Your task to perform on an android device: See recent photos Image 0: 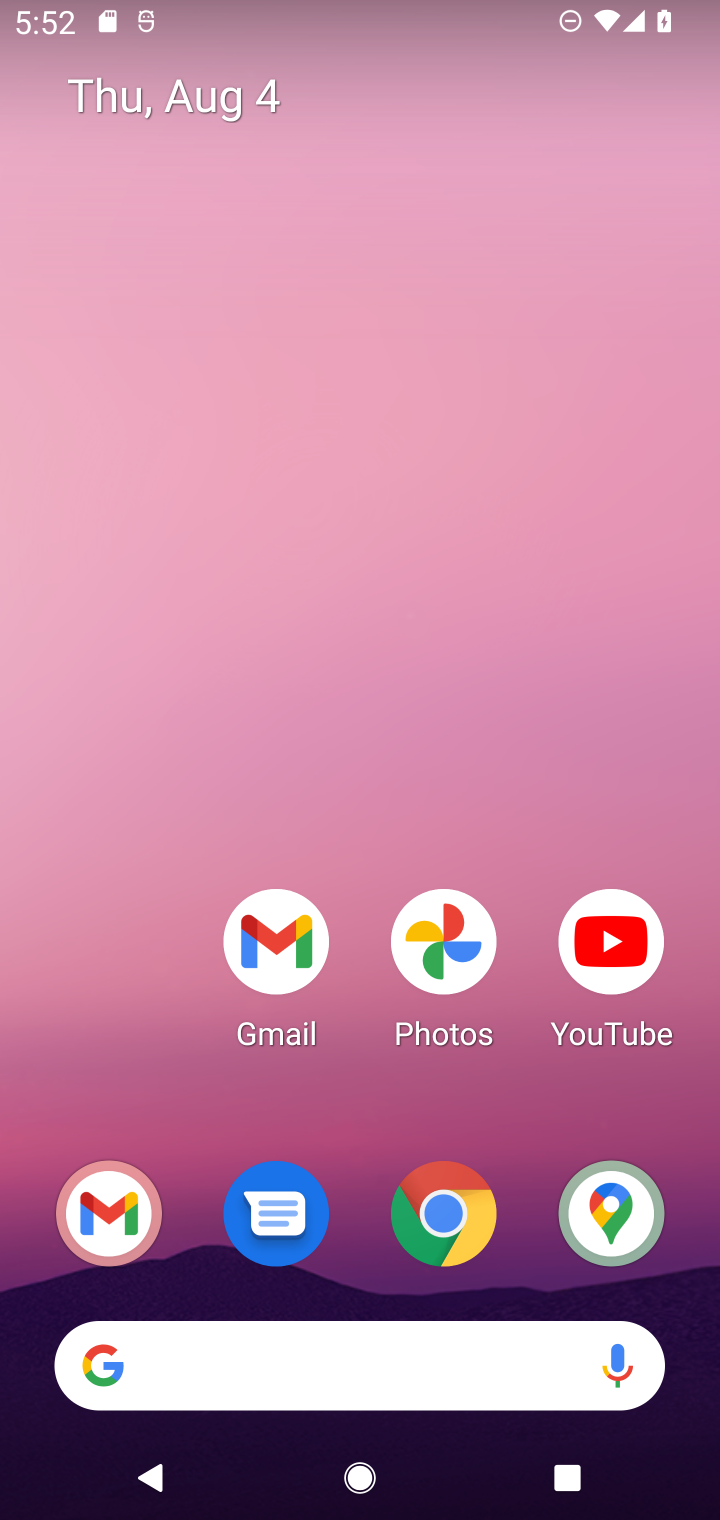
Step 0: drag from (167, 1060) to (169, 251)
Your task to perform on an android device: See recent photos Image 1: 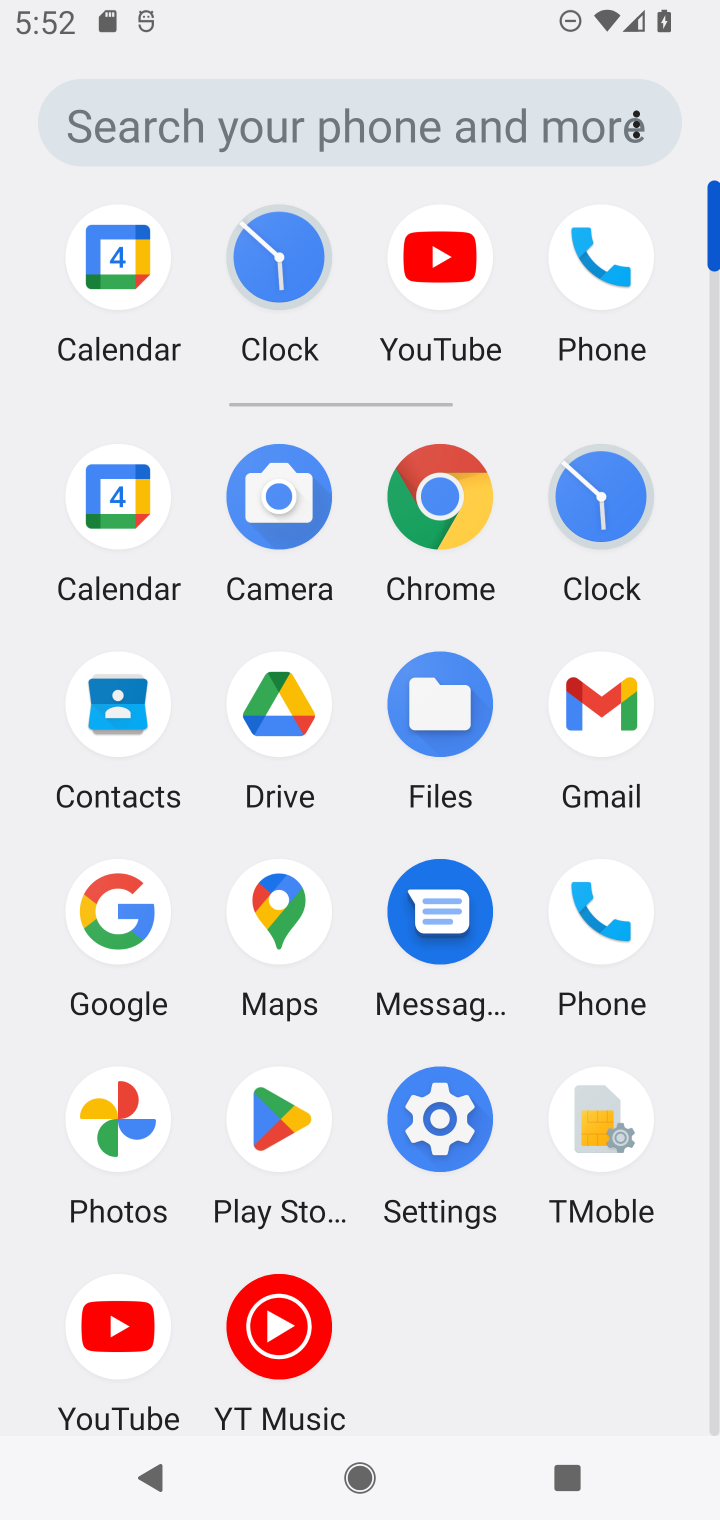
Step 1: click (116, 1136)
Your task to perform on an android device: See recent photos Image 2: 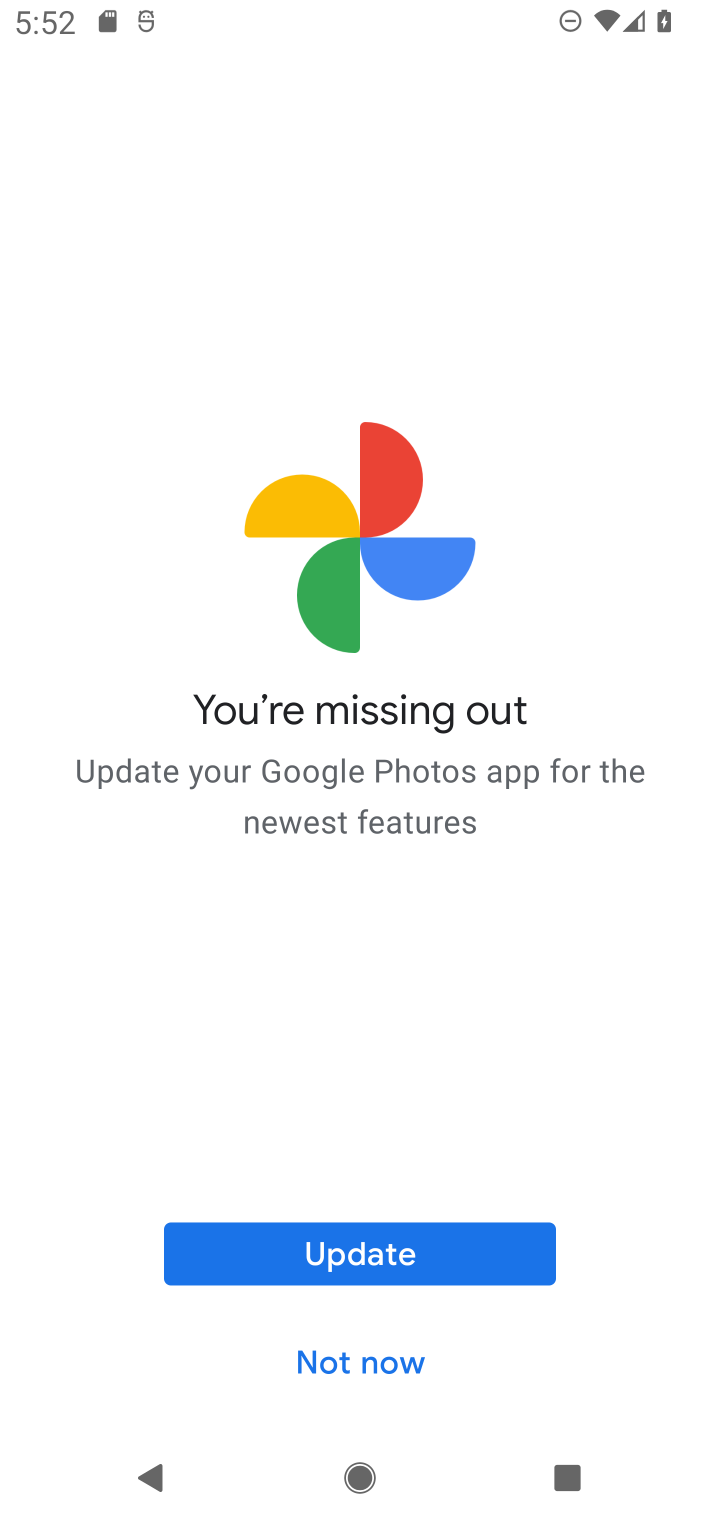
Step 2: click (375, 1350)
Your task to perform on an android device: See recent photos Image 3: 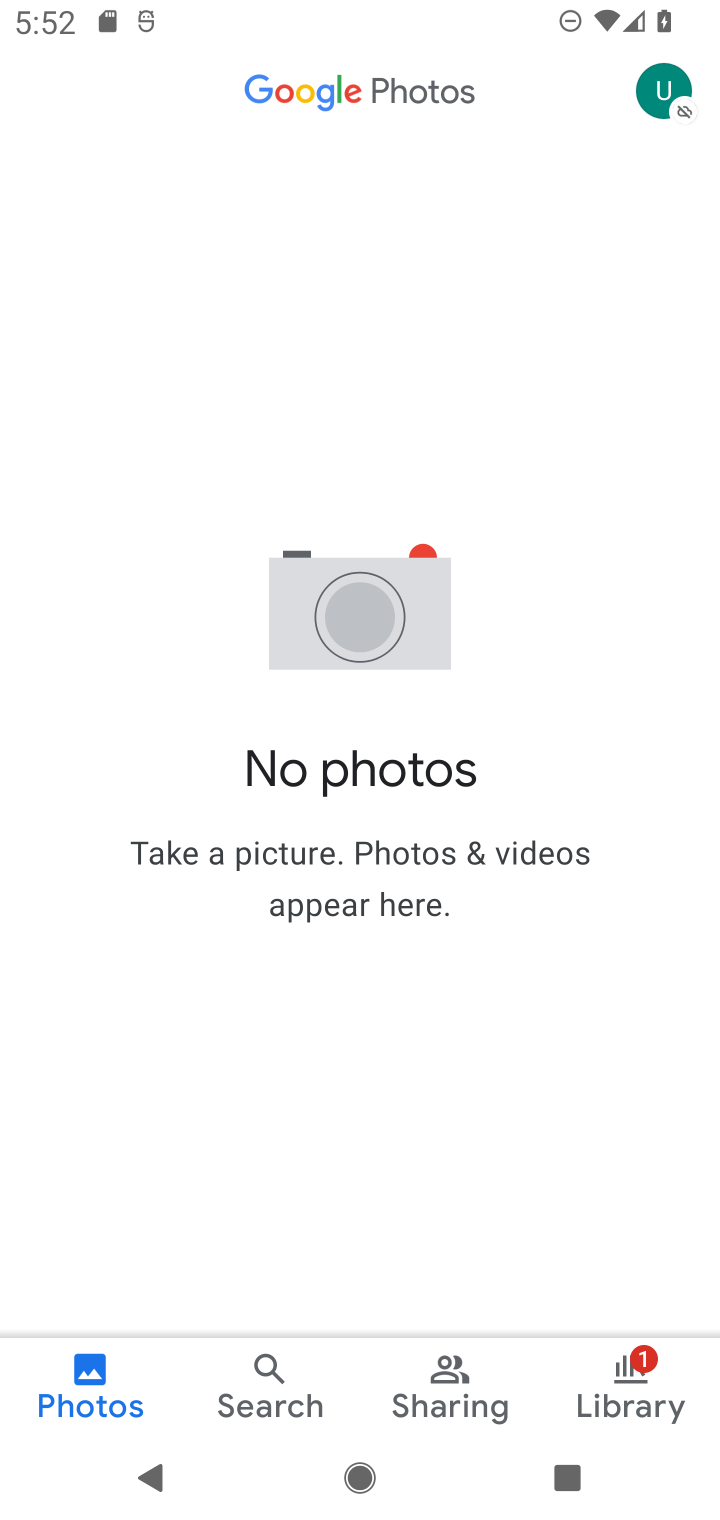
Step 3: task complete